Your task to perform on an android device: delete location history Image 0: 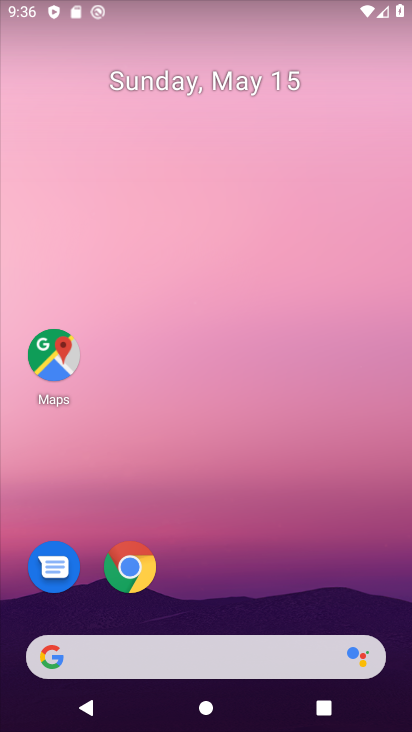
Step 0: drag from (220, 547) to (208, 130)
Your task to perform on an android device: delete location history Image 1: 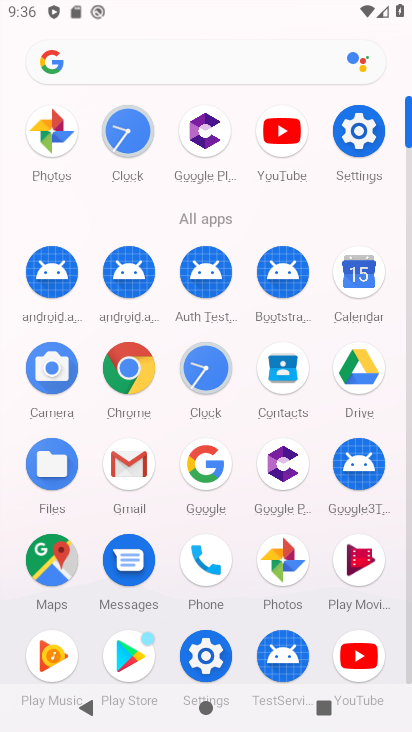
Step 1: click (357, 131)
Your task to perform on an android device: delete location history Image 2: 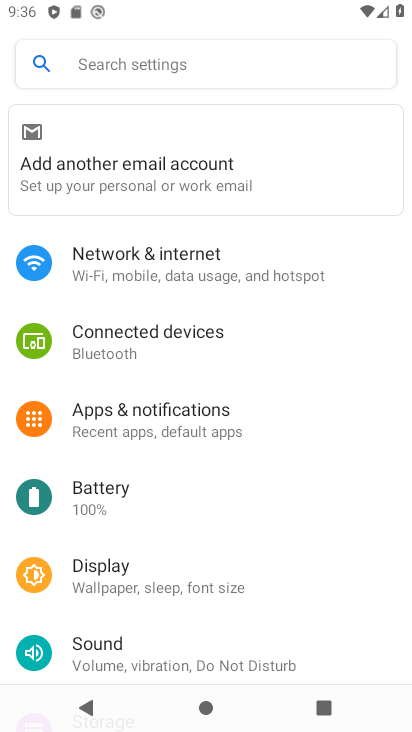
Step 2: drag from (186, 543) to (178, 171)
Your task to perform on an android device: delete location history Image 3: 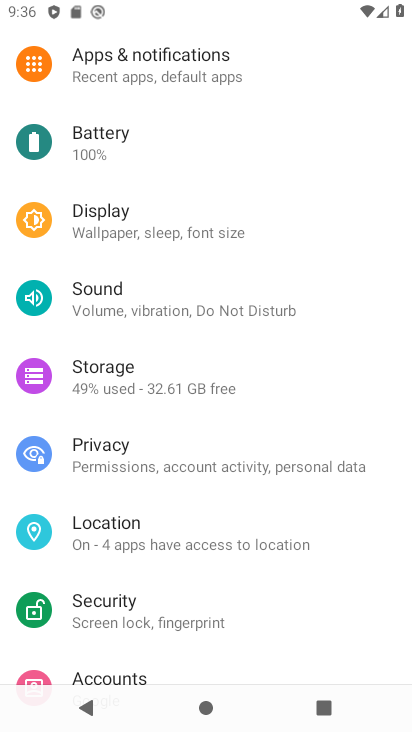
Step 3: click (117, 525)
Your task to perform on an android device: delete location history Image 4: 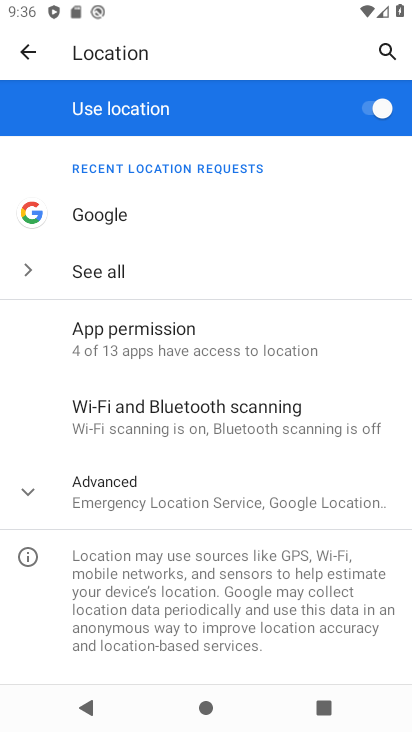
Step 4: click (138, 490)
Your task to perform on an android device: delete location history Image 5: 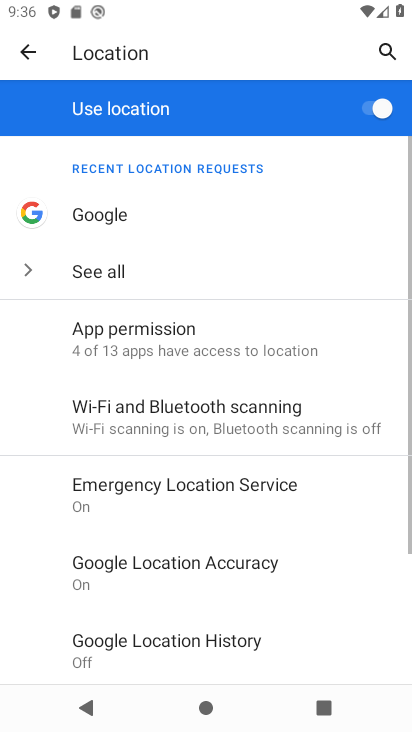
Step 5: drag from (186, 488) to (178, 294)
Your task to perform on an android device: delete location history Image 6: 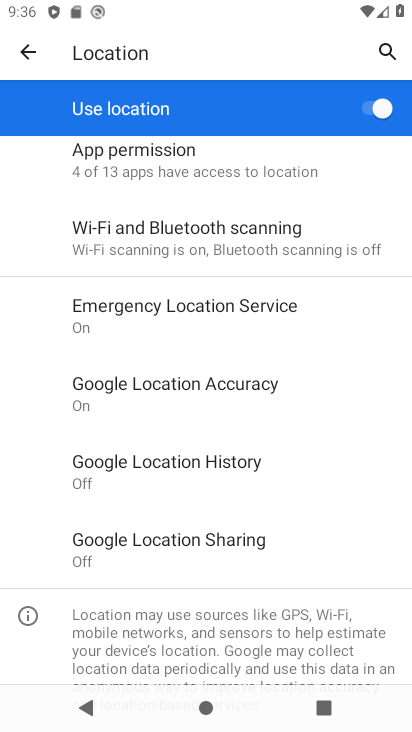
Step 6: click (196, 457)
Your task to perform on an android device: delete location history Image 7: 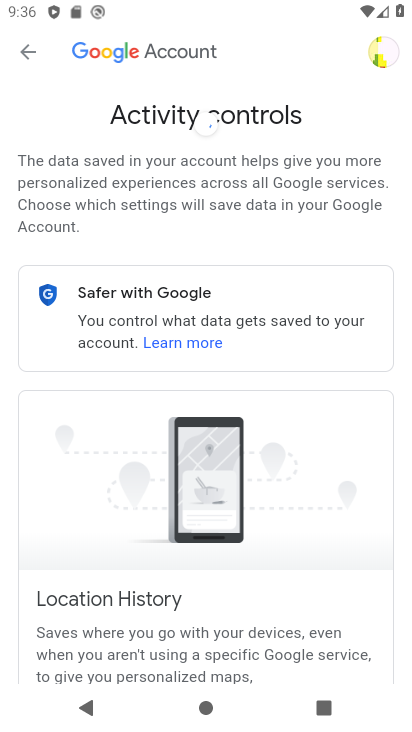
Step 7: drag from (207, 595) to (182, 106)
Your task to perform on an android device: delete location history Image 8: 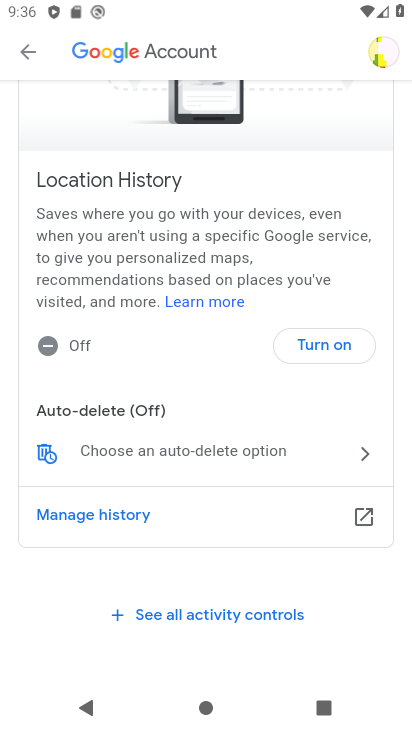
Step 8: click (45, 456)
Your task to perform on an android device: delete location history Image 9: 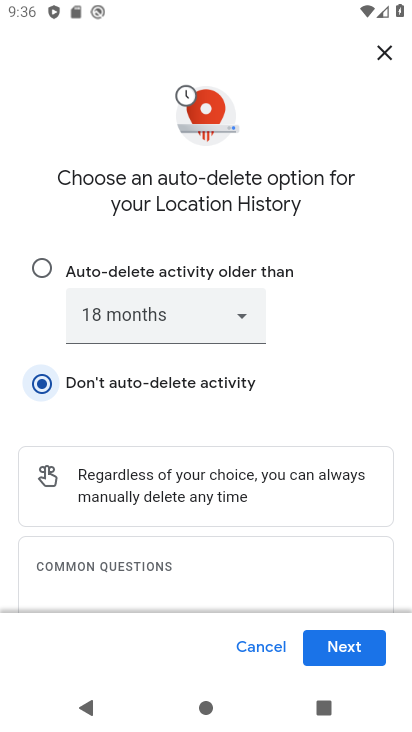
Step 9: click (334, 666)
Your task to perform on an android device: delete location history Image 10: 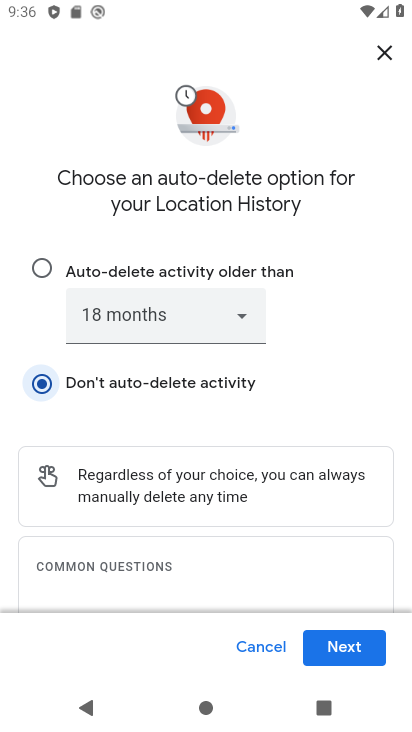
Step 10: click (346, 652)
Your task to perform on an android device: delete location history Image 11: 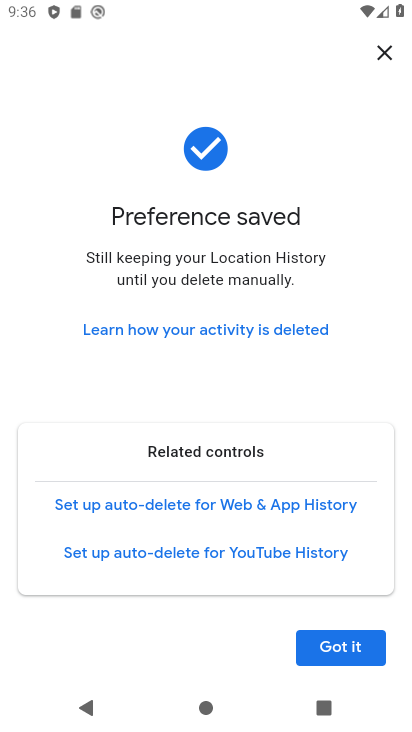
Step 11: click (334, 626)
Your task to perform on an android device: delete location history Image 12: 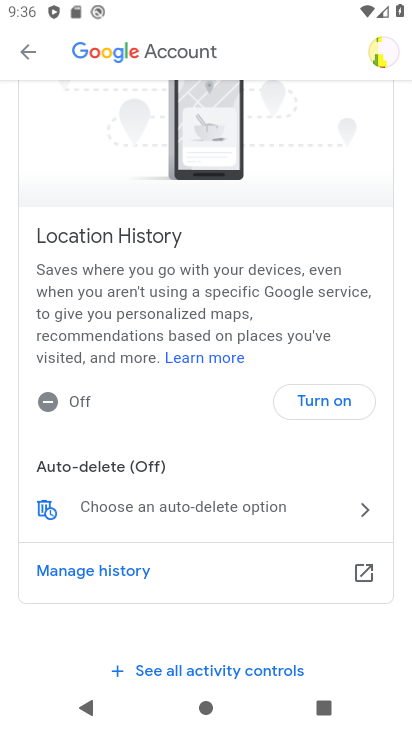
Step 12: task complete